Your task to perform on an android device: install app "Spotify: Music and Podcasts" Image 0: 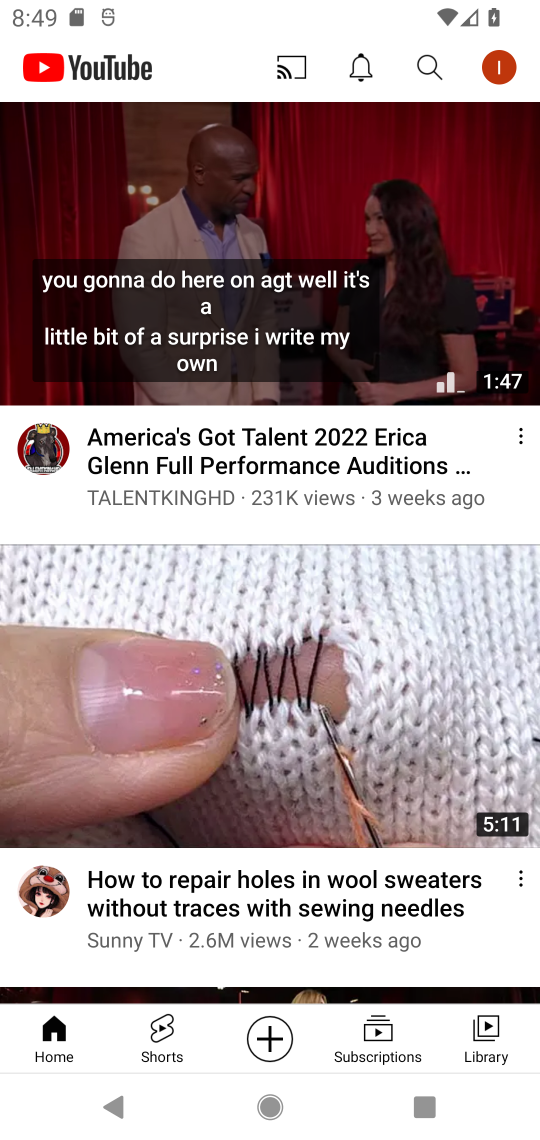
Step 0: press home button
Your task to perform on an android device: install app "Spotify: Music and Podcasts" Image 1: 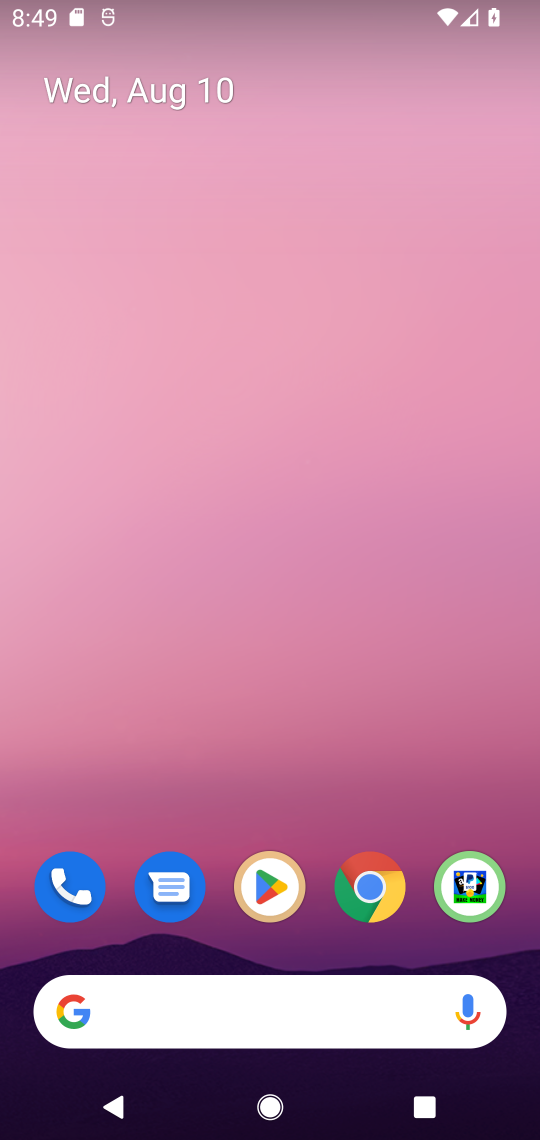
Step 1: click (272, 923)
Your task to perform on an android device: install app "Spotify: Music and Podcasts" Image 2: 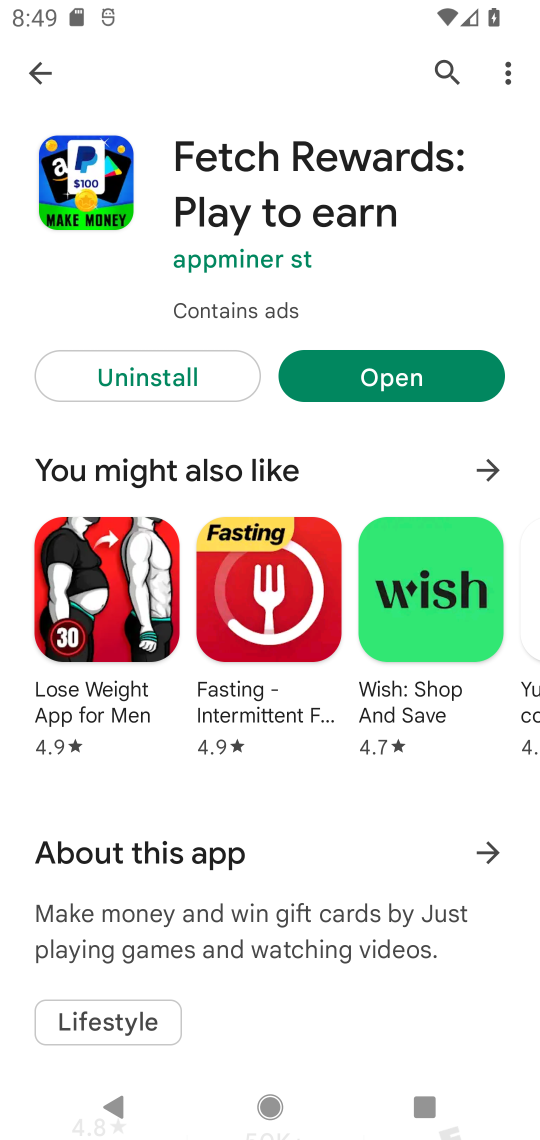
Step 2: click (431, 91)
Your task to perform on an android device: install app "Spotify: Music and Podcasts" Image 3: 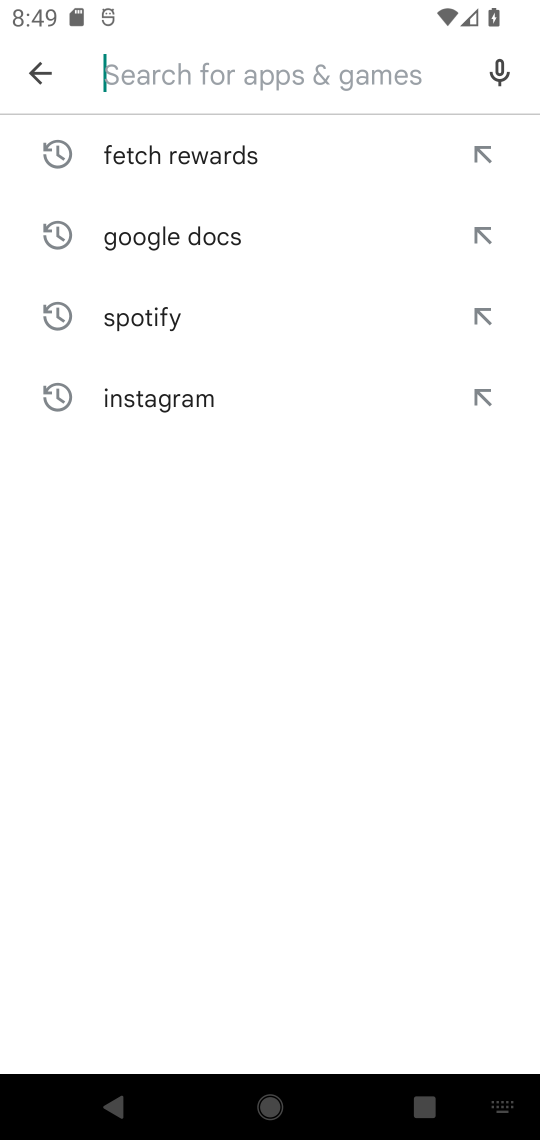
Step 3: type "spotify"
Your task to perform on an android device: install app "Spotify: Music and Podcasts" Image 4: 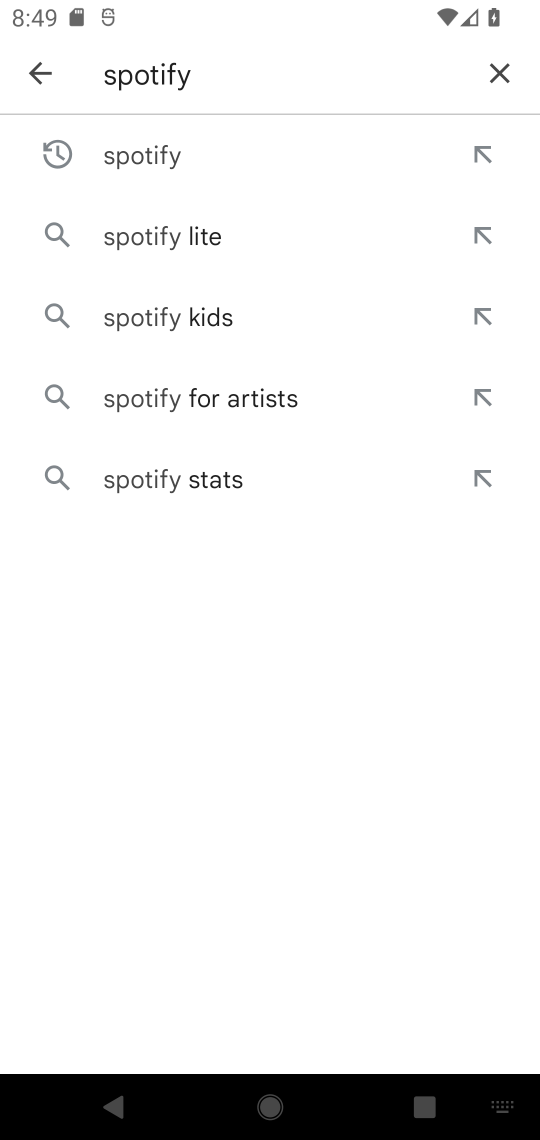
Step 4: click (273, 143)
Your task to perform on an android device: install app "Spotify: Music and Podcasts" Image 5: 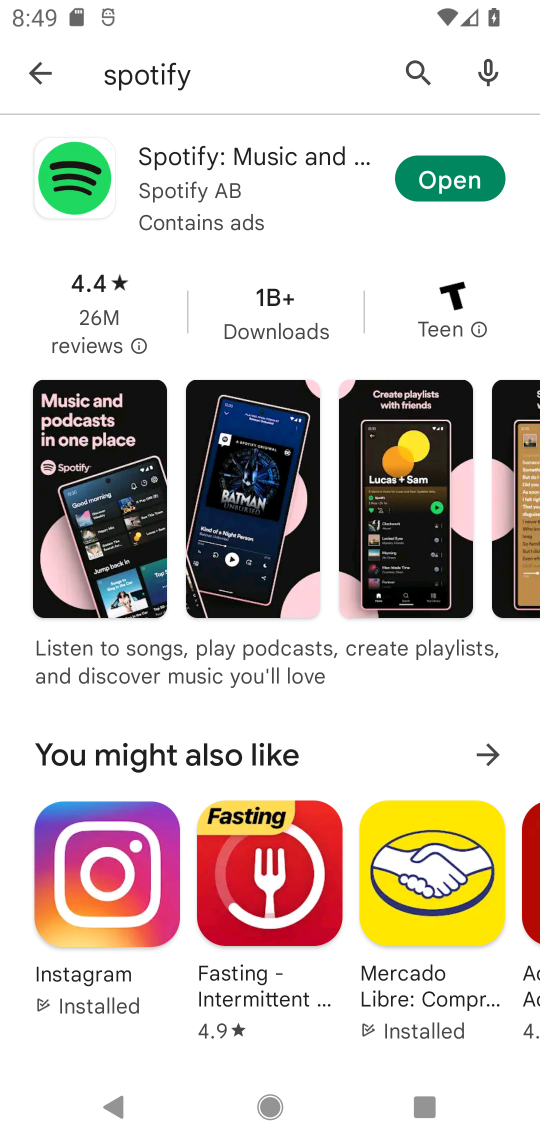
Step 5: click (433, 163)
Your task to perform on an android device: install app "Spotify: Music and Podcasts" Image 6: 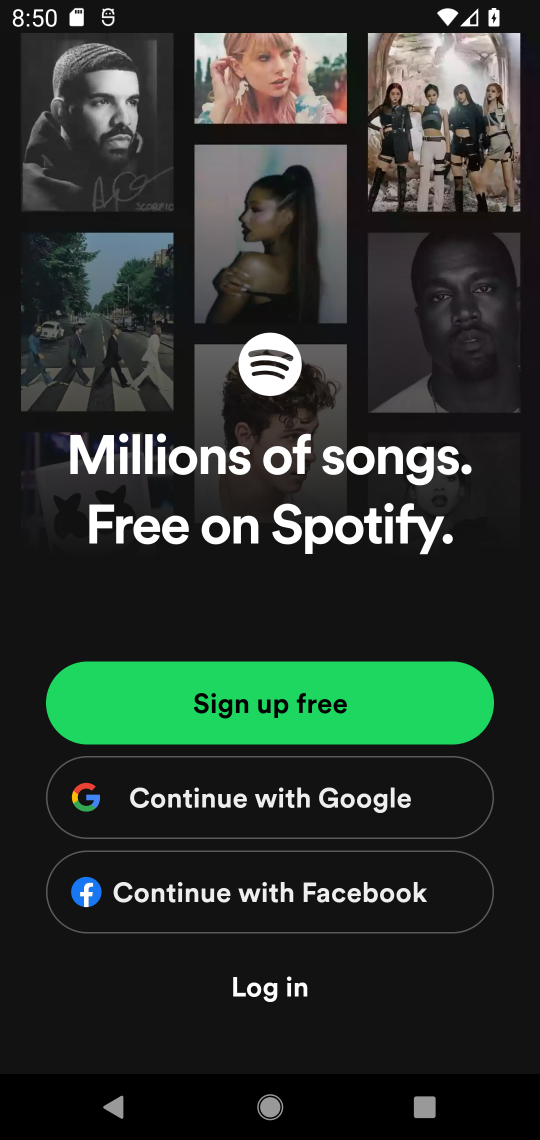
Step 6: task complete